Your task to perform on an android device: Clear all items from cart on target.com. Add usb-a to usb-b to the cart on target.com Image 0: 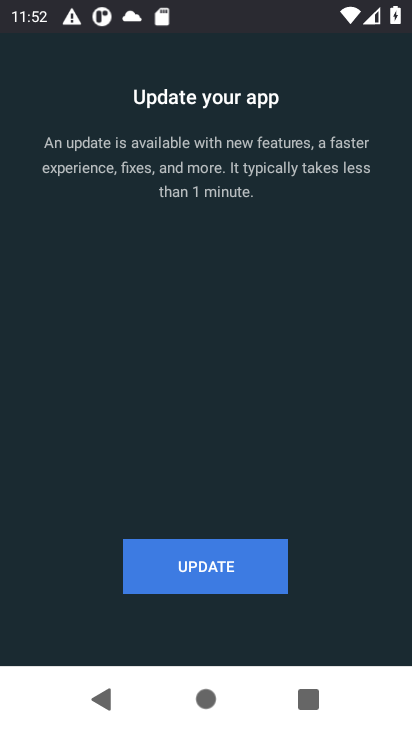
Step 0: press home button
Your task to perform on an android device: Clear all items from cart on target.com. Add usb-a to usb-b to the cart on target.com Image 1: 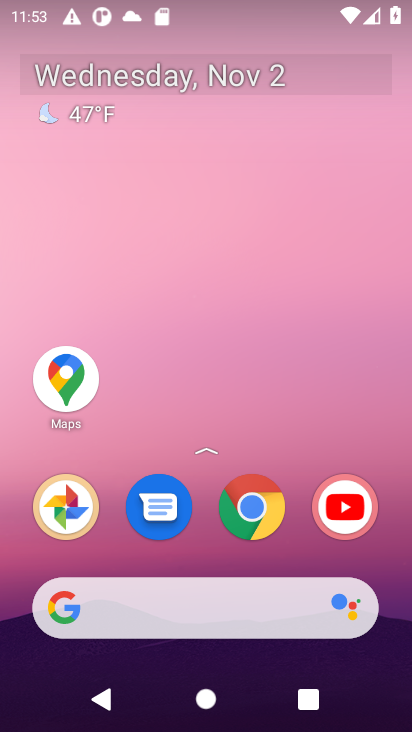
Step 1: click (198, 597)
Your task to perform on an android device: Clear all items from cart on target.com. Add usb-a to usb-b to the cart on target.com Image 2: 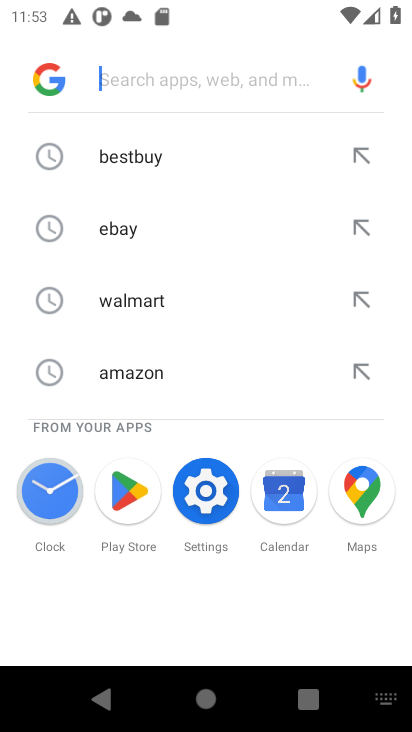
Step 2: type "target.com"
Your task to perform on an android device: Clear all items from cart on target.com. Add usb-a to usb-b to the cart on target.com Image 3: 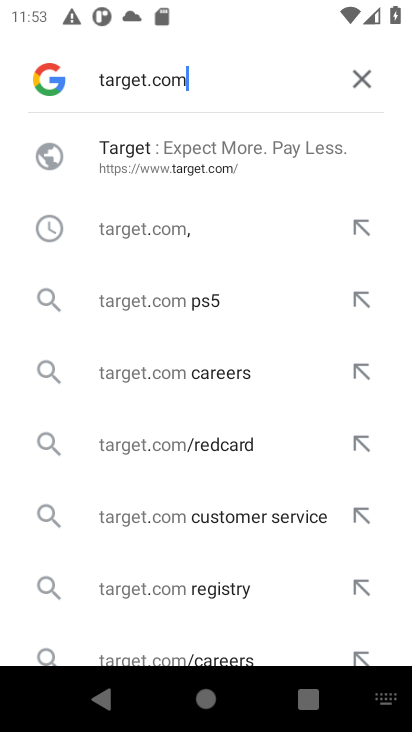
Step 3: click (198, 180)
Your task to perform on an android device: Clear all items from cart on target.com. Add usb-a to usb-b to the cart on target.com Image 4: 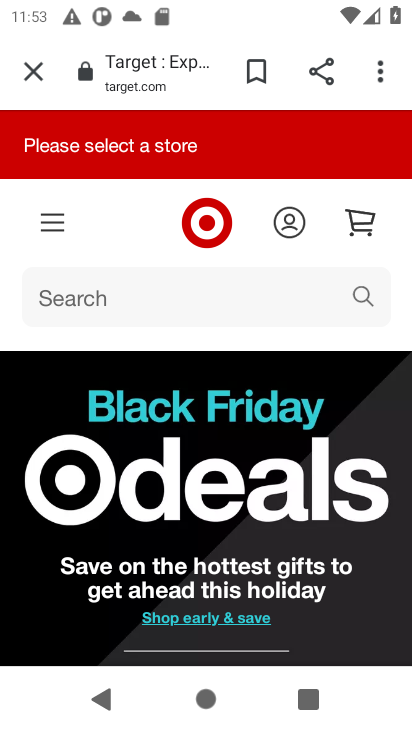
Step 4: click (269, 285)
Your task to perform on an android device: Clear all items from cart on target.com. Add usb-a to usb-b to the cart on target.com Image 5: 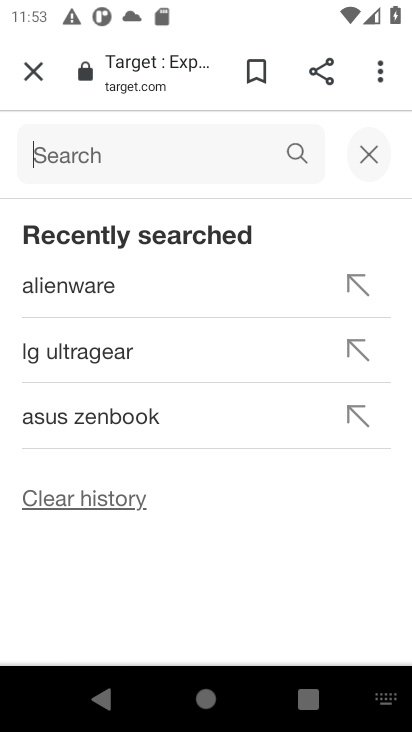
Step 5: type "usb-a to usb-b"
Your task to perform on an android device: Clear all items from cart on target.com. Add usb-a to usb-b to the cart on target.com Image 6: 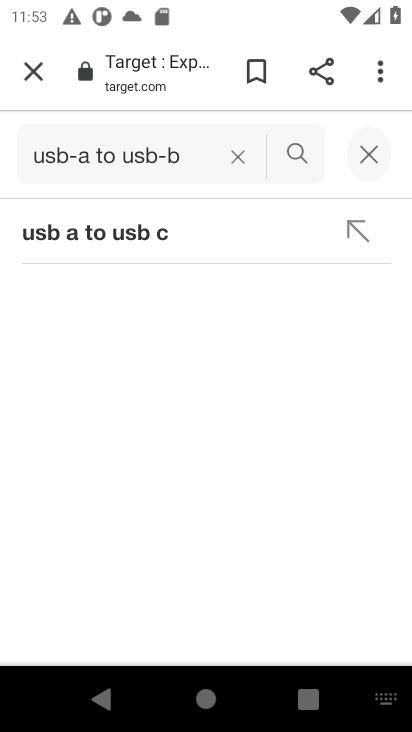
Step 6: click (287, 163)
Your task to perform on an android device: Clear all items from cart on target.com. Add usb-a to usb-b to the cart on target.com Image 7: 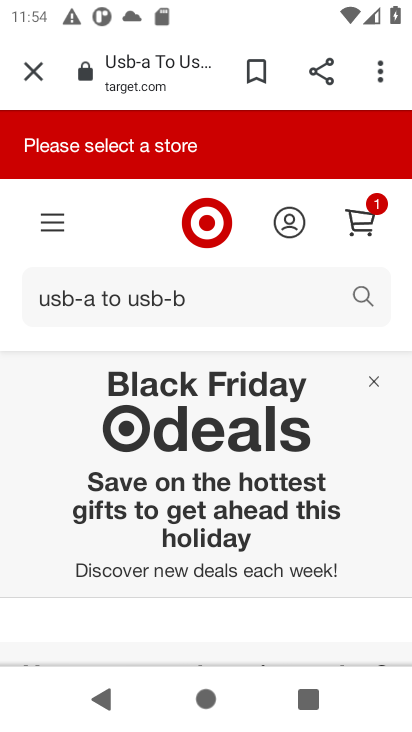
Step 7: task complete